Your task to perform on an android device: Open Maps and search for coffee Image 0: 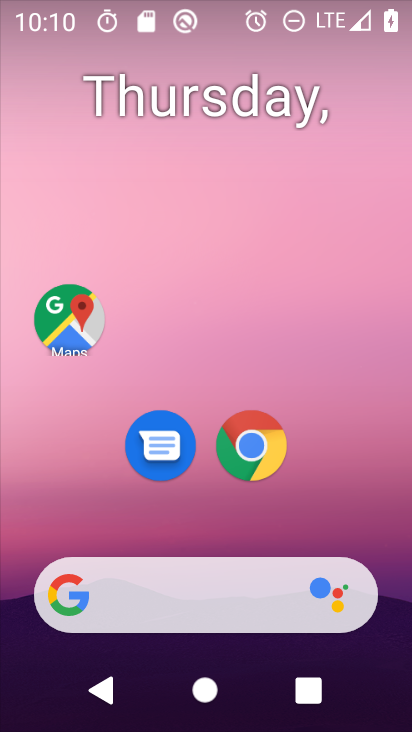
Step 0: drag from (202, 535) to (165, 9)
Your task to perform on an android device: Open Maps and search for coffee Image 1: 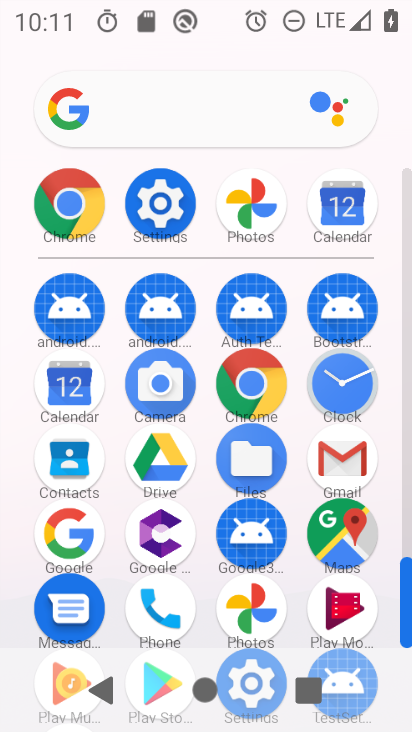
Step 1: click (329, 520)
Your task to perform on an android device: Open Maps and search for coffee Image 2: 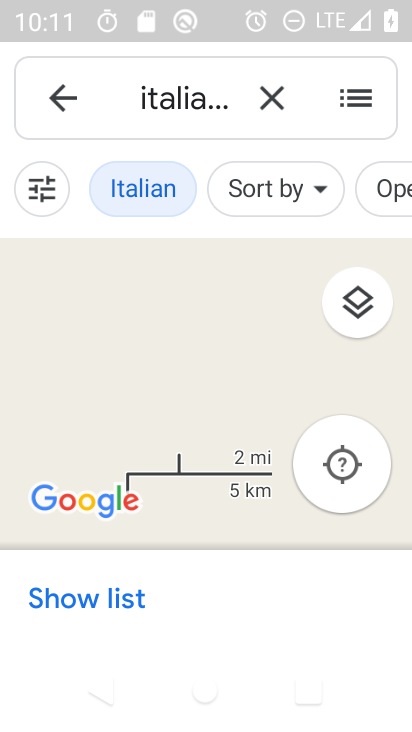
Step 2: click (298, 104)
Your task to perform on an android device: Open Maps and search for coffee Image 3: 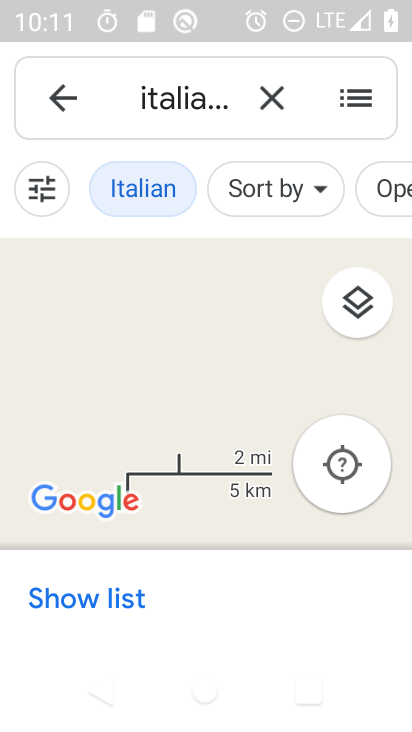
Step 3: click (287, 98)
Your task to perform on an android device: Open Maps and search for coffee Image 4: 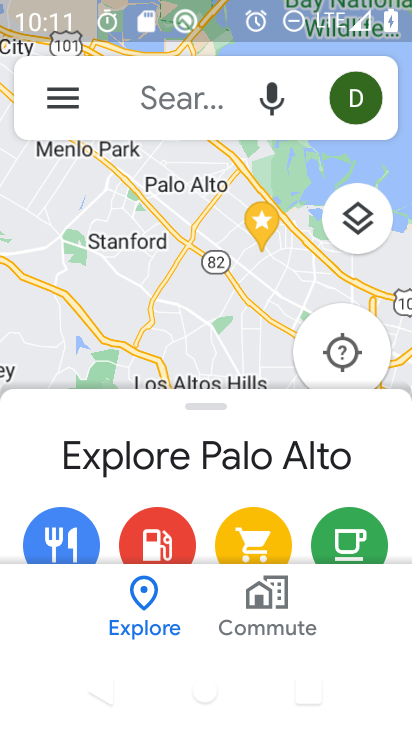
Step 4: click (136, 98)
Your task to perform on an android device: Open Maps and search for coffee Image 5: 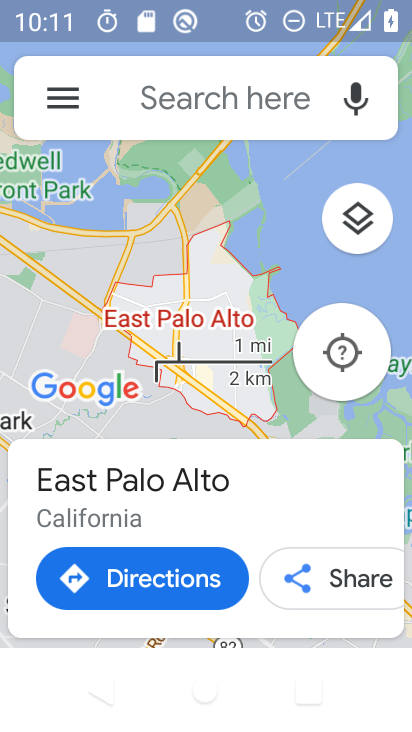
Step 5: click (137, 99)
Your task to perform on an android device: Open Maps and search for coffee Image 6: 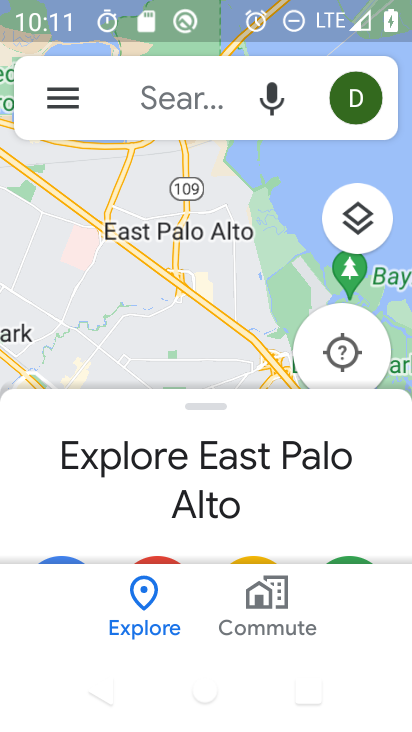
Step 6: click (171, 73)
Your task to perform on an android device: Open Maps and search for coffee Image 7: 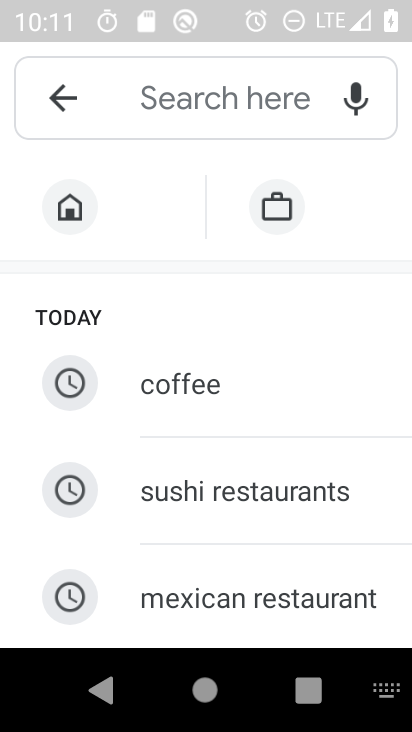
Step 7: click (180, 354)
Your task to perform on an android device: Open Maps and search for coffee Image 8: 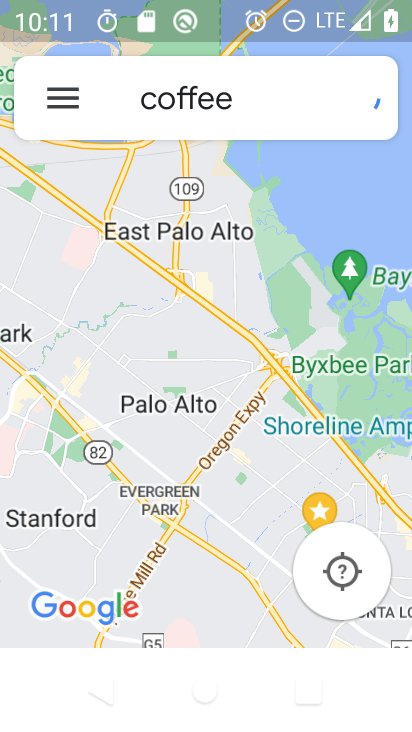
Step 8: task complete